Your task to perform on an android device: Clear the cart on walmart.com. Image 0: 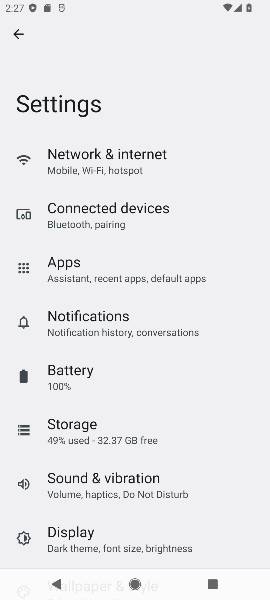
Step 0: press home button
Your task to perform on an android device: Clear the cart on walmart.com. Image 1: 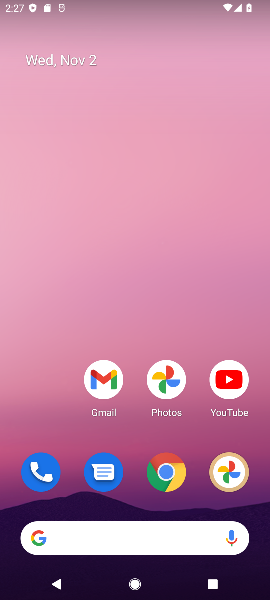
Step 1: click (168, 469)
Your task to perform on an android device: Clear the cart on walmart.com. Image 2: 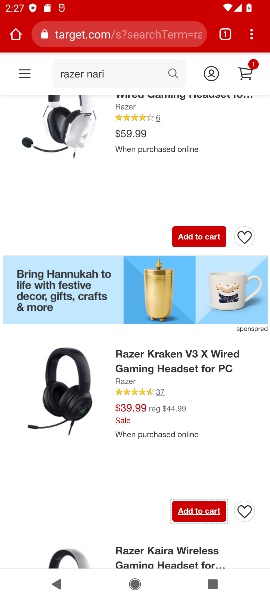
Step 2: click (148, 37)
Your task to perform on an android device: Clear the cart on walmart.com. Image 3: 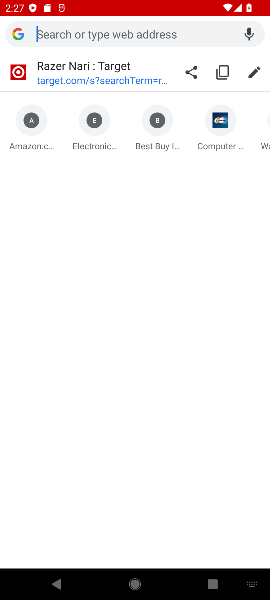
Step 3: type "walmart.com"
Your task to perform on an android device: Clear the cart on walmart.com. Image 4: 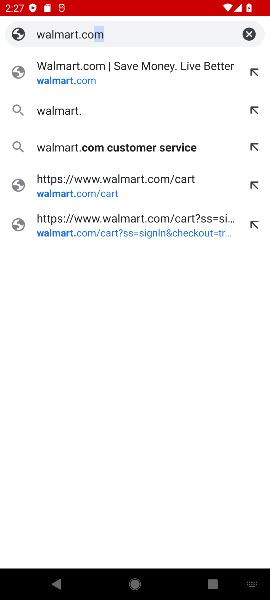
Step 4: type ""
Your task to perform on an android device: Clear the cart on walmart.com. Image 5: 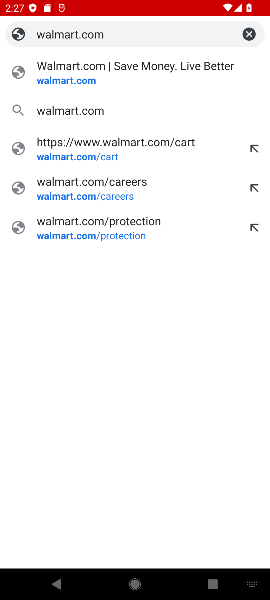
Step 5: click (93, 63)
Your task to perform on an android device: Clear the cart on walmart.com. Image 6: 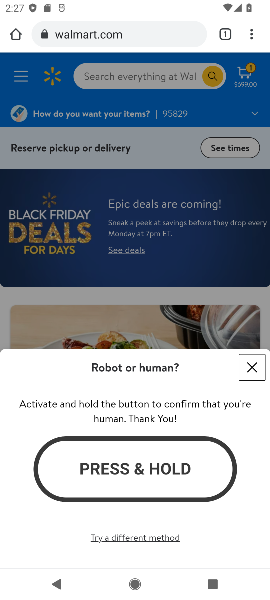
Step 6: click (244, 368)
Your task to perform on an android device: Clear the cart on walmart.com. Image 7: 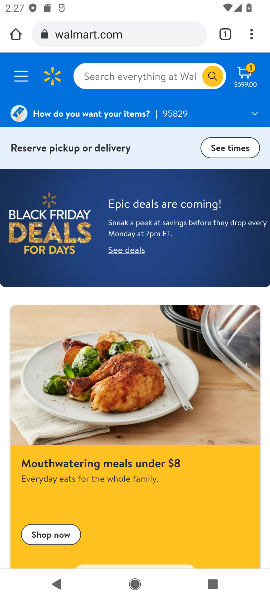
Step 7: drag from (138, 524) to (182, 186)
Your task to perform on an android device: Clear the cart on walmart.com. Image 8: 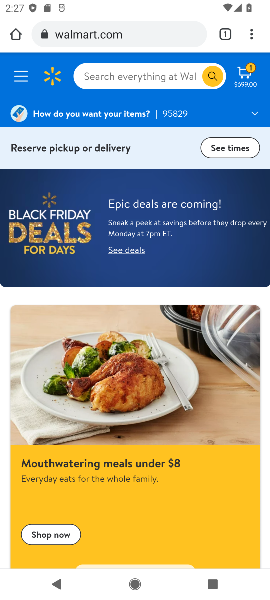
Step 8: click (254, 73)
Your task to perform on an android device: Clear the cart on walmart.com. Image 9: 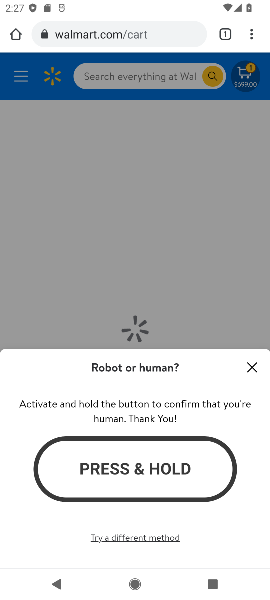
Step 9: click (91, 484)
Your task to perform on an android device: Clear the cart on walmart.com. Image 10: 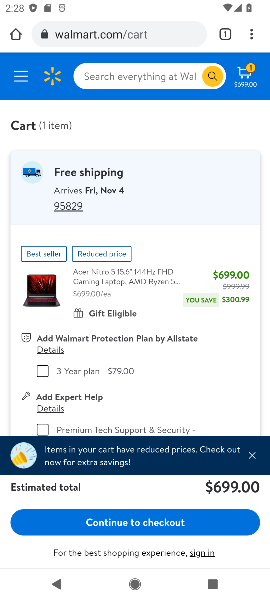
Step 10: drag from (103, 383) to (116, 208)
Your task to perform on an android device: Clear the cart on walmart.com. Image 11: 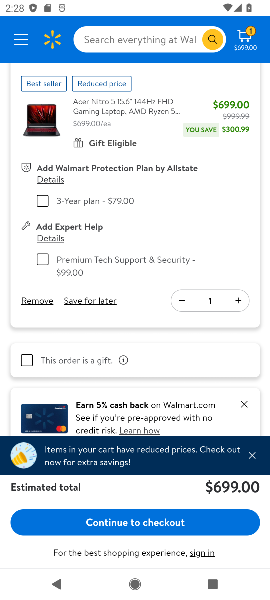
Step 11: click (24, 296)
Your task to perform on an android device: Clear the cart on walmart.com. Image 12: 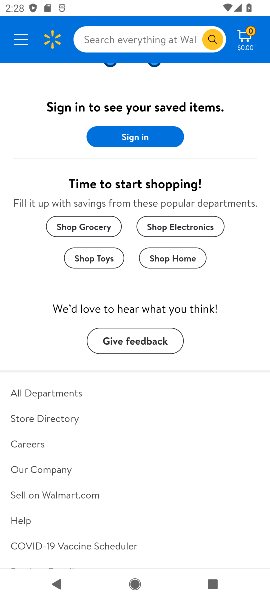
Step 12: press back button
Your task to perform on an android device: Clear the cart on walmart.com. Image 13: 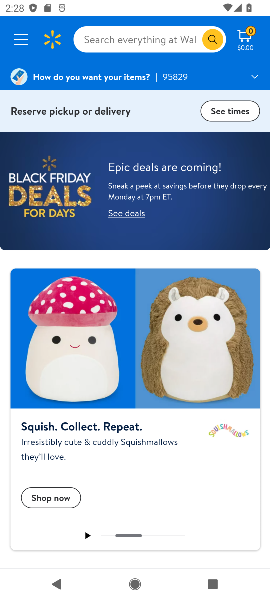
Step 13: drag from (151, 352) to (165, 146)
Your task to perform on an android device: Clear the cart on walmart.com. Image 14: 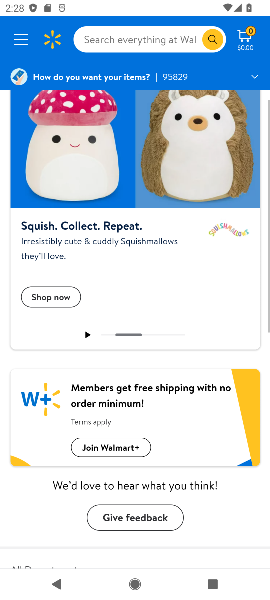
Step 14: drag from (162, 286) to (163, 149)
Your task to perform on an android device: Clear the cart on walmart.com. Image 15: 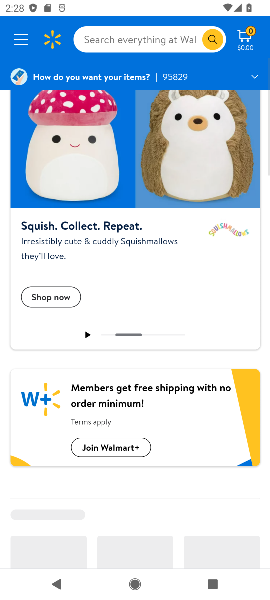
Step 15: drag from (159, 338) to (167, 179)
Your task to perform on an android device: Clear the cart on walmart.com. Image 16: 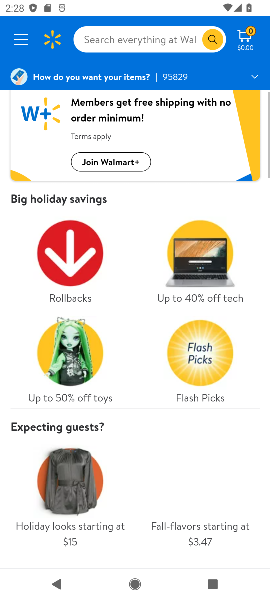
Step 16: drag from (135, 372) to (135, 194)
Your task to perform on an android device: Clear the cart on walmart.com. Image 17: 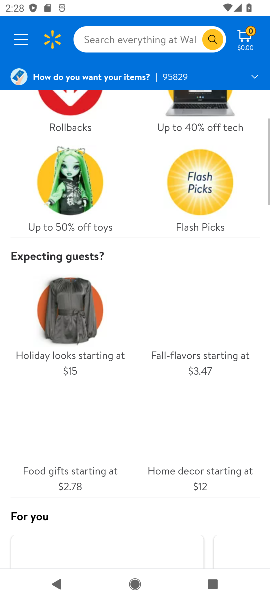
Step 17: drag from (146, 314) to (145, 176)
Your task to perform on an android device: Clear the cart on walmart.com. Image 18: 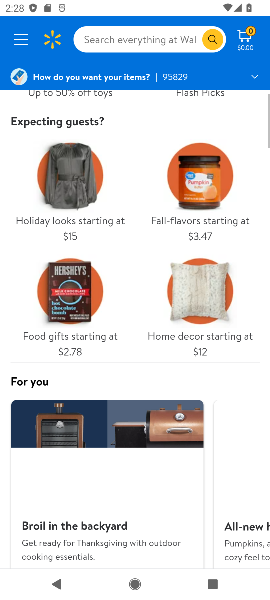
Step 18: drag from (149, 371) to (153, 174)
Your task to perform on an android device: Clear the cart on walmart.com. Image 19: 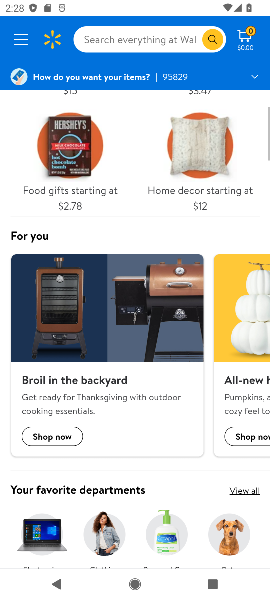
Step 19: drag from (167, 323) to (175, 167)
Your task to perform on an android device: Clear the cart on walmart.com. Image 20: 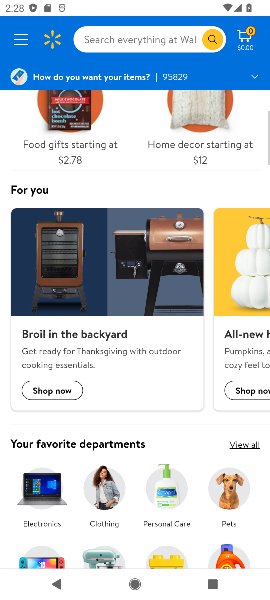
Step 20: drag from (172, 305) to (156, 132)
Your task to perform on an android device: Clear the cart on walmart.com. Image 21: 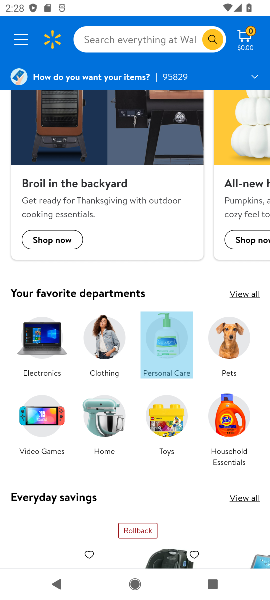
Step 21: drag from (159, 291) to (159, 143)
Your task to perform on an android device: Clear the cart on walmart.com. Image 22: 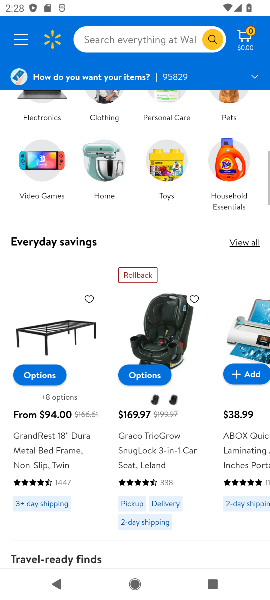
Step 22: drag from (127, 337) to (154, 156)
Your task to perform on an android device: Clear the cart on walmart.com. Image 23: 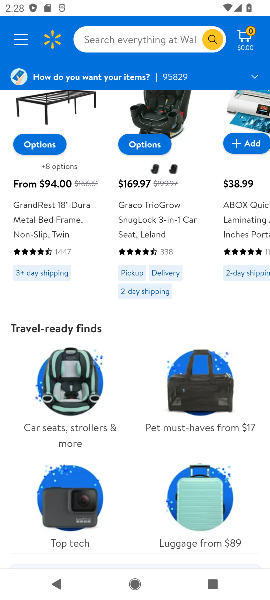
Step 23: press back button
Your task to perform on an android device: Clear the cart on walmart.com. Image 24: 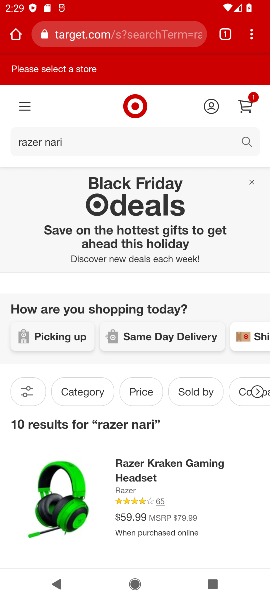
Step 24: drag from (192, 494) to (170, 239)
Your task to perform on an android device: Clear the cart on walmart.com. Image 25: 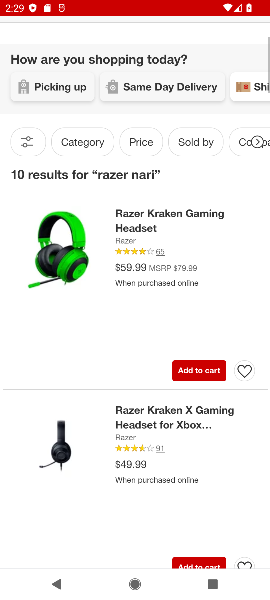
Step 25: drag from (161, 438) to (164, 277)
Your task to perform on an android device: Clear the cart on walmart.com. Image 26: 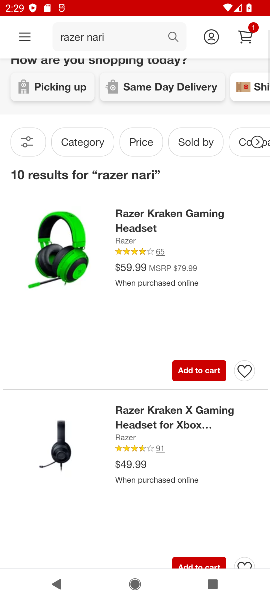
Step 26: drag from (191, 438) to (169, 247)
Your task to perform on an android device: Clear the cart on walmart.com. Image 27: 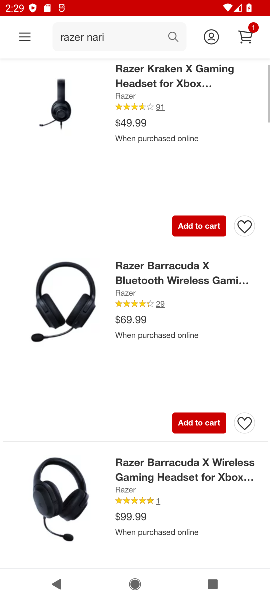
Step 27: drag from (199, 431) to (202, 252)
Your task to perform on an android device: Clear the cart on walmart.com. Image 28: 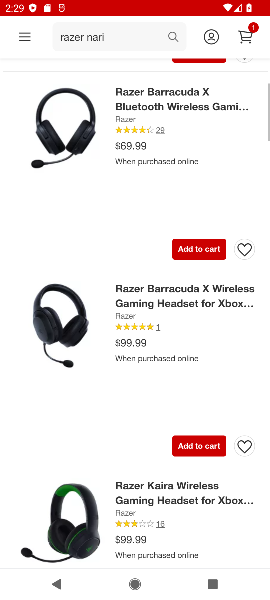
Step 28: drag from (221, 400) to (215, 221)
Your task to perform on an android device: Clear the cart on walmart.com. Image 29: 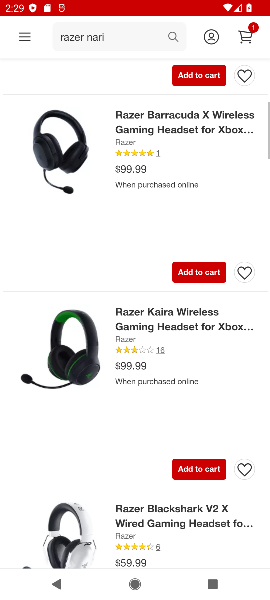
Step 29: drag from (178, 425) to (149, 219)
Your task to perform on an android device: Clear the cart on walmart.com. Image 30: 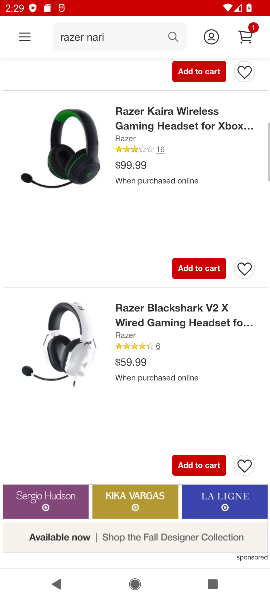
Step 30: click (141, 170)
Your task to perform on an android device: Clear the cart on walmart.com. Image 31: 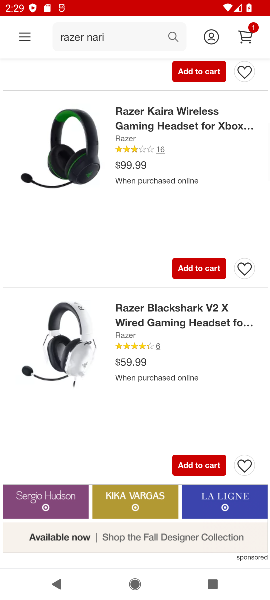
Step 31: drag from (156, 336) to (153, 244)
Your task to perform on an android device: Clear the cart on walmart.com. Image 32: 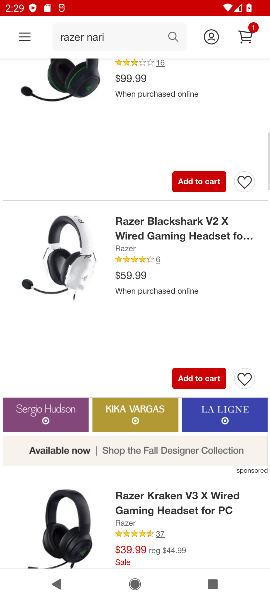
Step 32: click (243, 34)
Your task to perform on an android device: Clear the cart on walmart.com. Image 33: 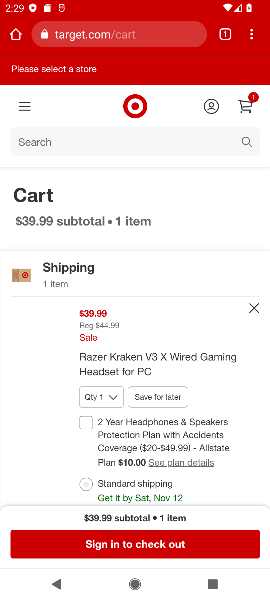
Step 33: drag from (67, 469) to (64, 253)
Your task to perform on an android device: Clear the cart on walmart.com. Image 34: 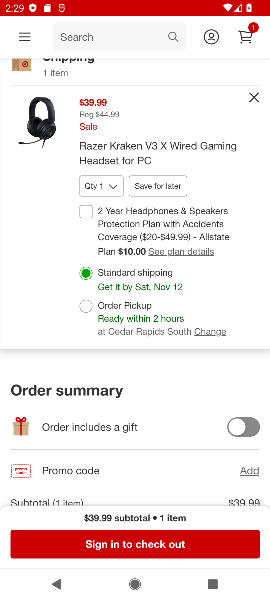
Step 34: drag from (94, 382) to (105, 262)
Your task to perform on an android device: Clear the cart on walmart.com. Image 35: 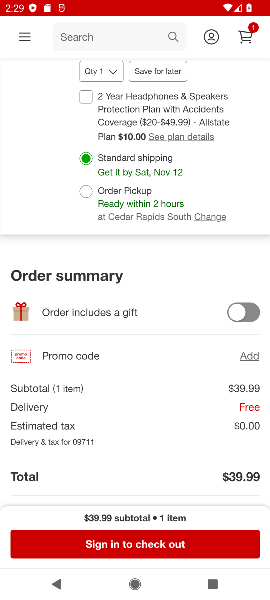
Step 35: click (97, 67)
Your task to perform on an android device: Clear the cart on walmart.com. Image 36: 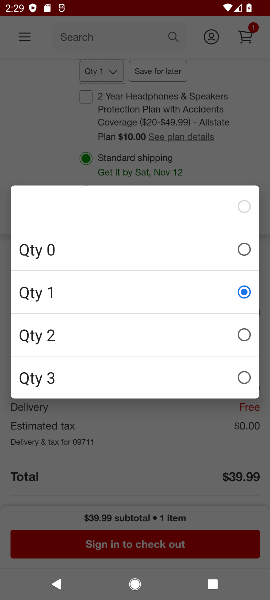
Step 36: click (117, 249)
Your task to perform on an android device: Clear the cart on walmart.com. Image 37: 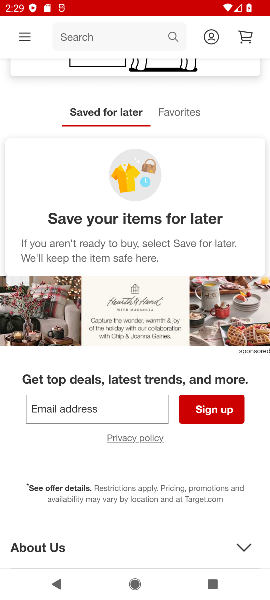
Step 37: task complete